Your task to perform on an android device: check android version Image 0: 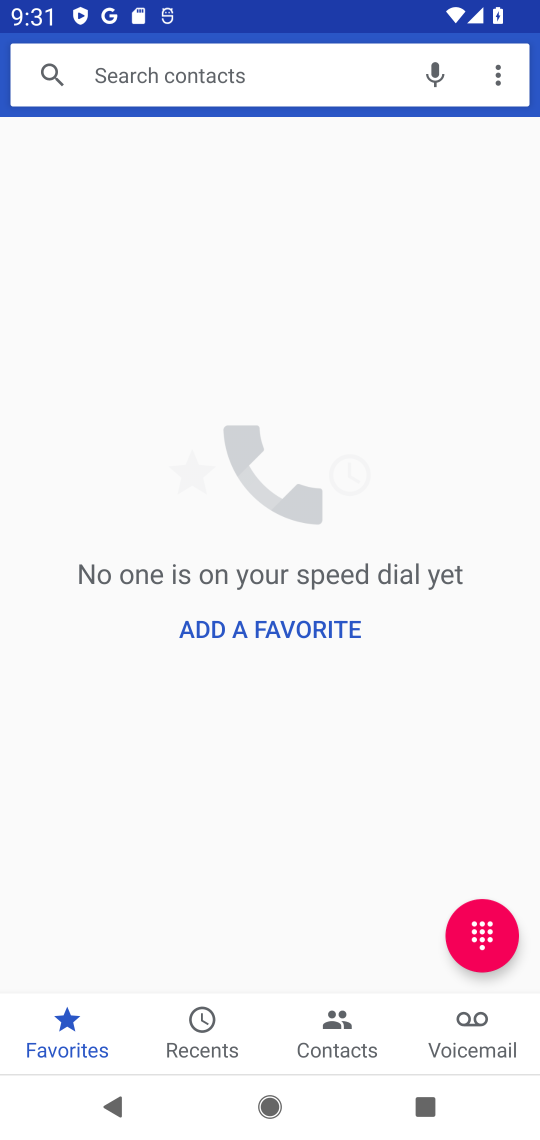
Step 0: press home button
Your task to perform on an android device: check android version Image 1: 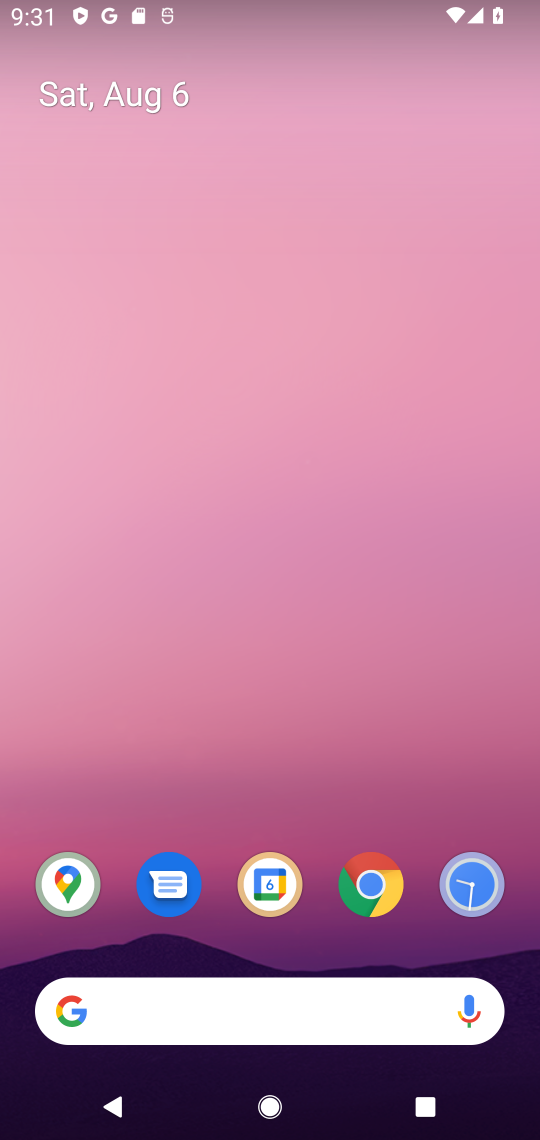
Step 1: drag from (413, 947) to (400, 52)
Your task to perform on an android device: check android version Image 2: 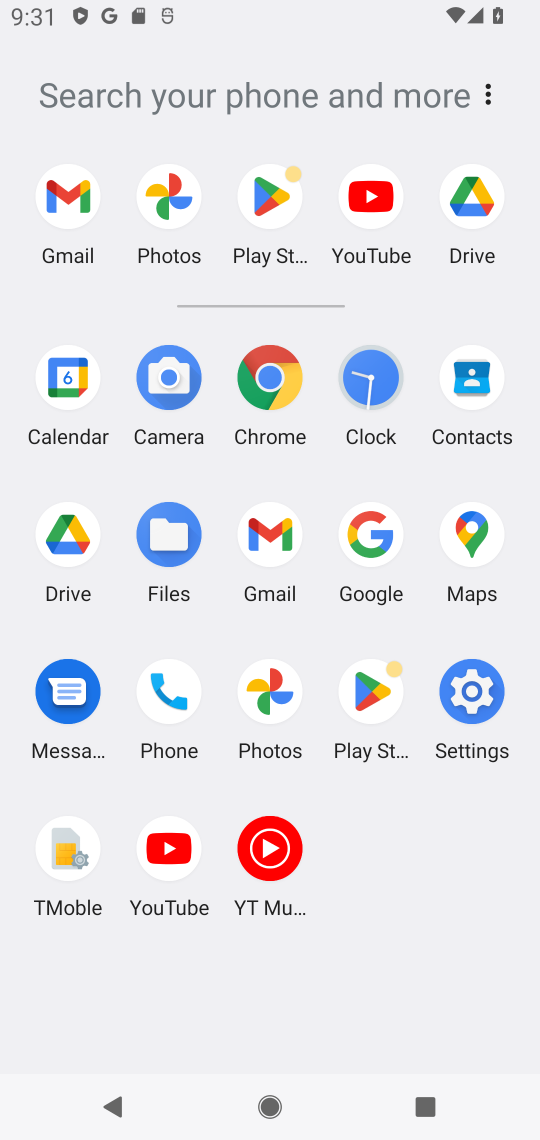
Step 2: click (471, 691)
Your task to perform on an android device: check android version Image 3: 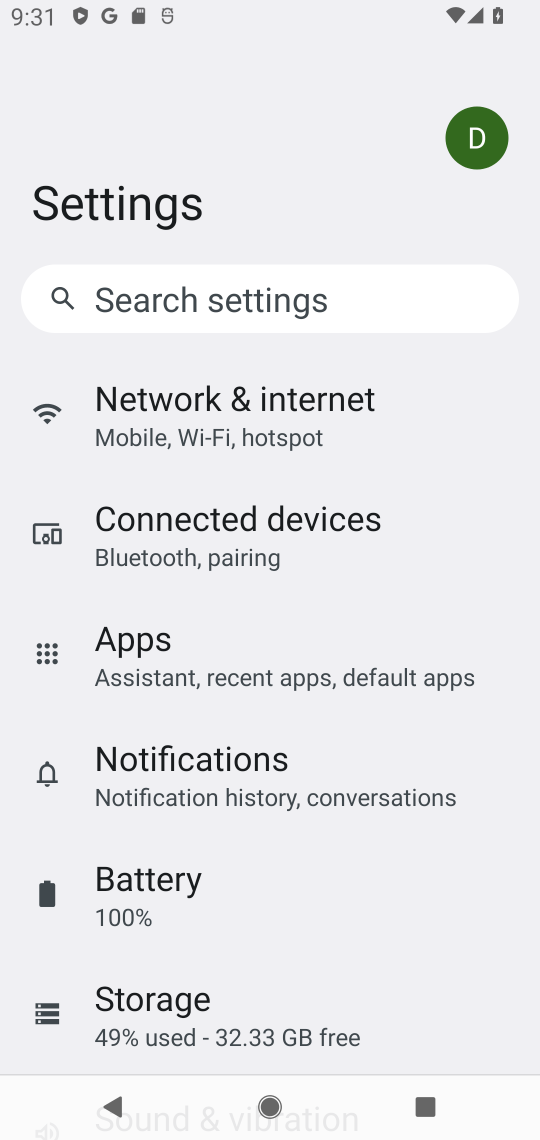
Step 3: drag from (391, 1022) to (410, 422)
Your task to perform on an android device: check android version Image 4: 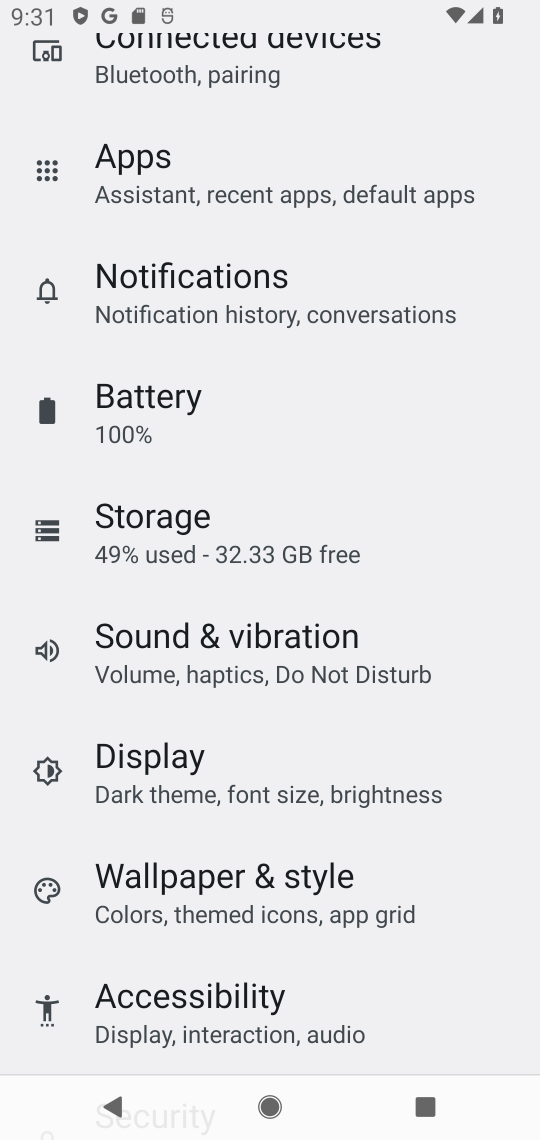
Step 4: drag from (424, 1021) to (459, 391)
Your task to perform on an android device: check android version Image 5: 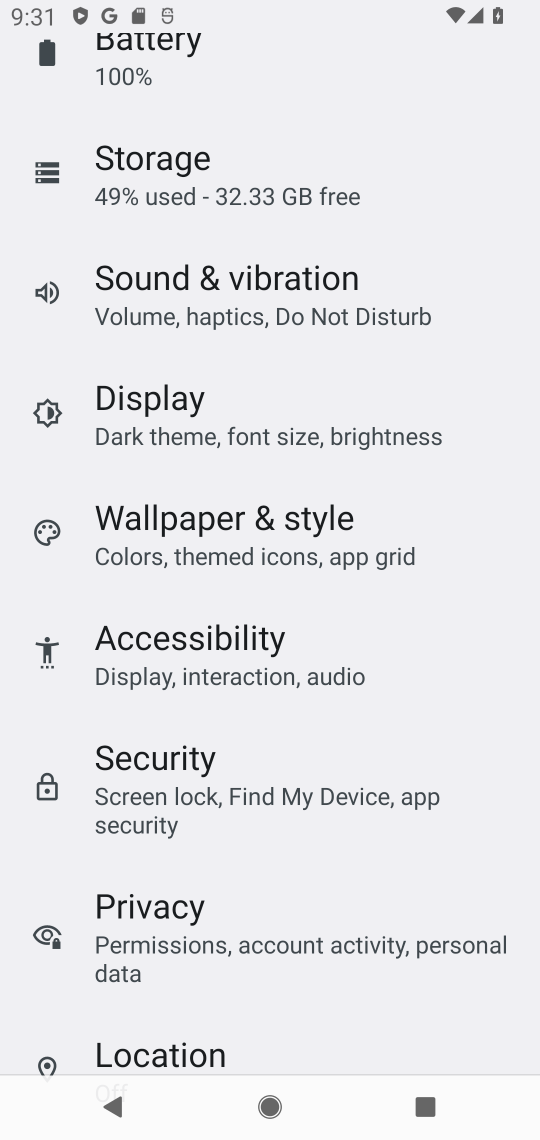
Step 5: drag from (442, 1005) to (479, 308)
Your task to perform on an android device: check android version Image 6: 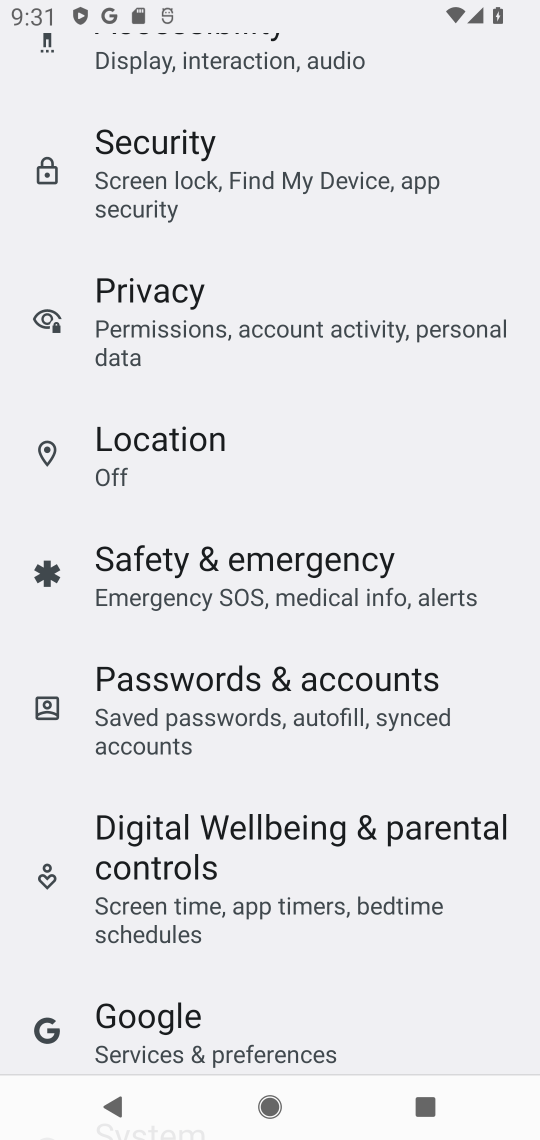
Step 6: drag from (426, 958) to (454, 410)
Your task to perform on an android device: check android version Image 7: 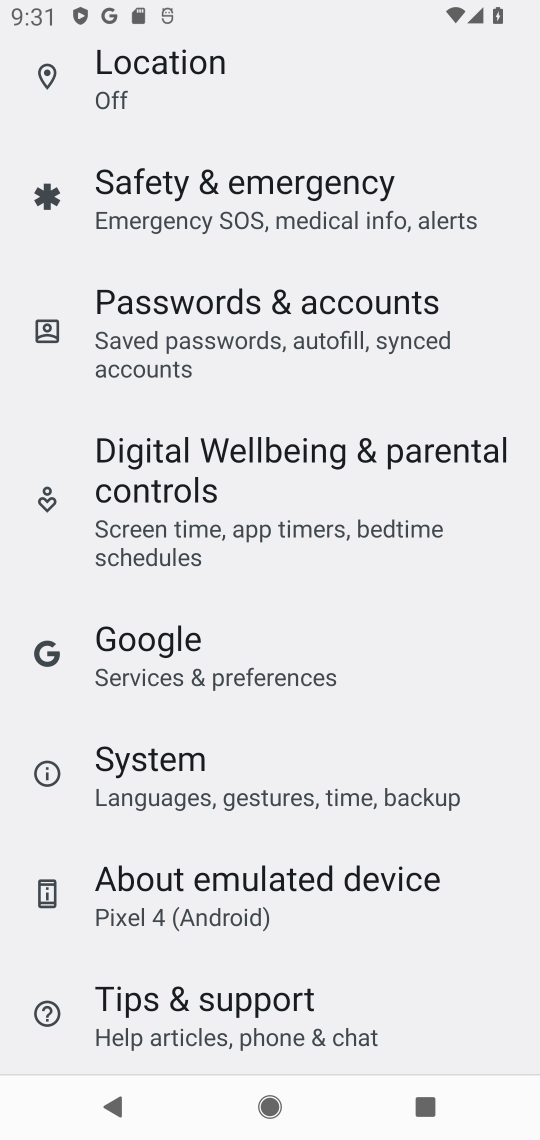
Step 7: click (144, 906)
Your task to perform on an android device: check android version Image 8: 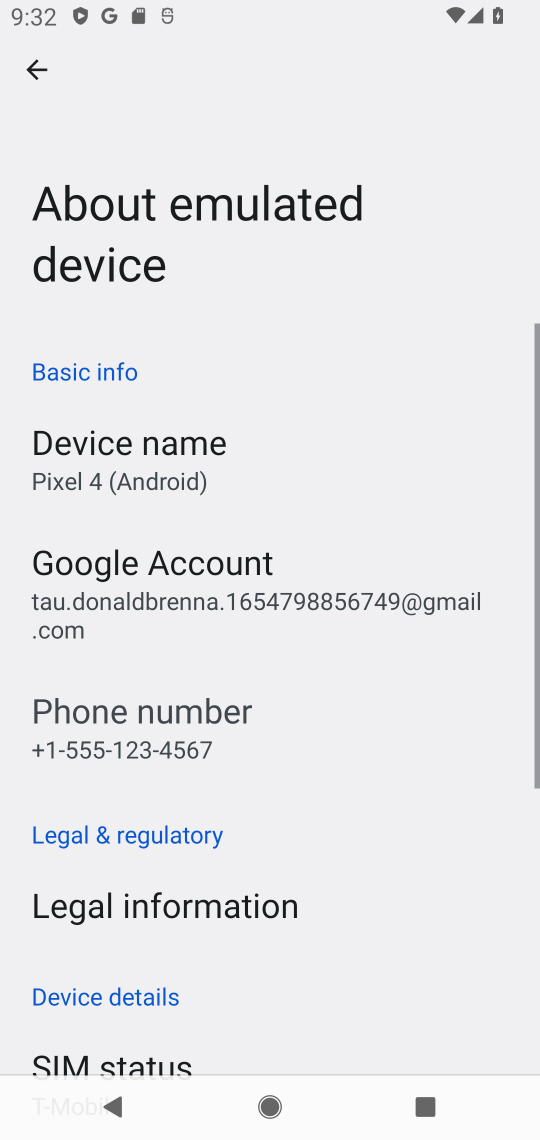
Step 8: drag from (337, 993) to (411, 416)
Your task to perform on an android device: check android version Image 9: 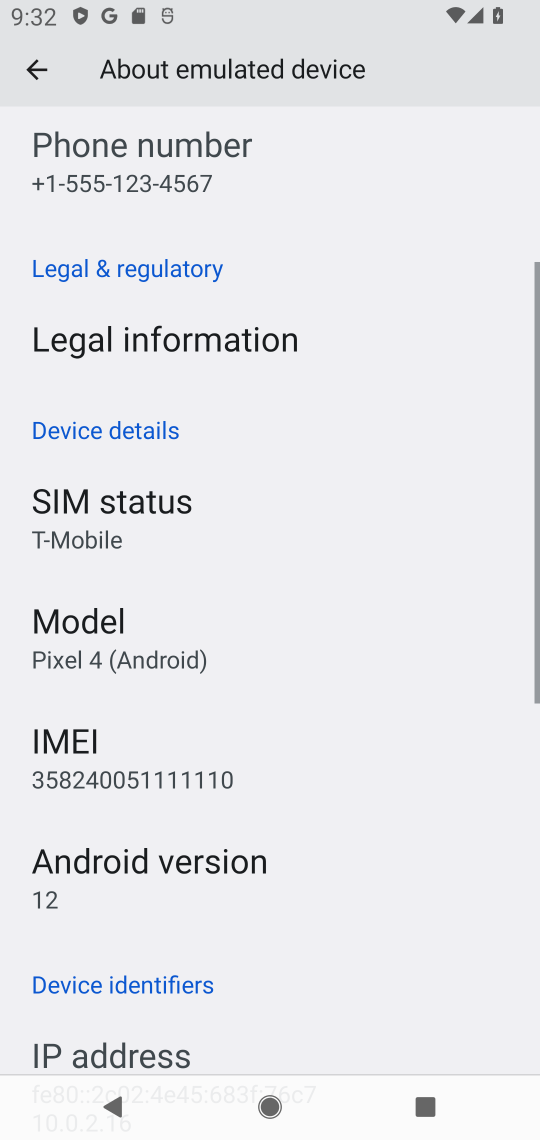
Step 9: drag from (380, 968) to (407, 637)
Your task to perform on an android device: check android version Image 10: 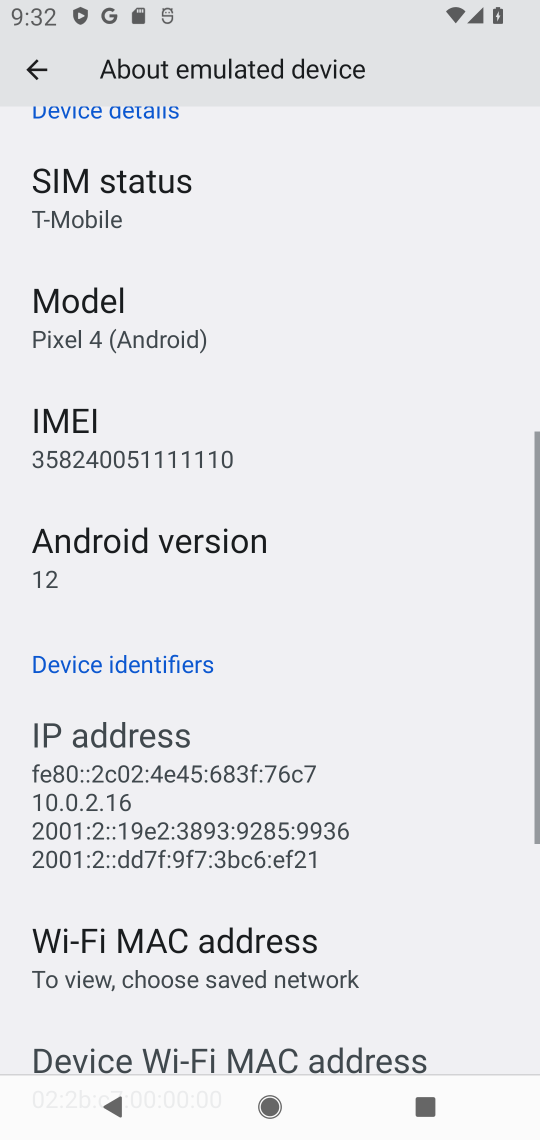
Step 10: click (83, 538)
Your task to perform on an android device: check android version Image 11: 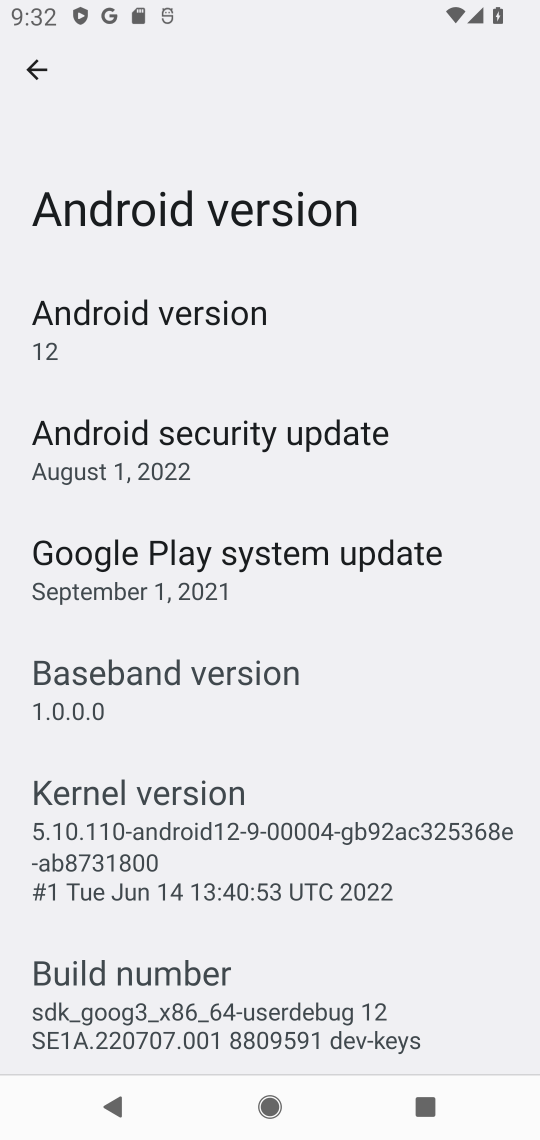
Step 11: task complete